Your task to perform on an android device: change the clock style Image 0: 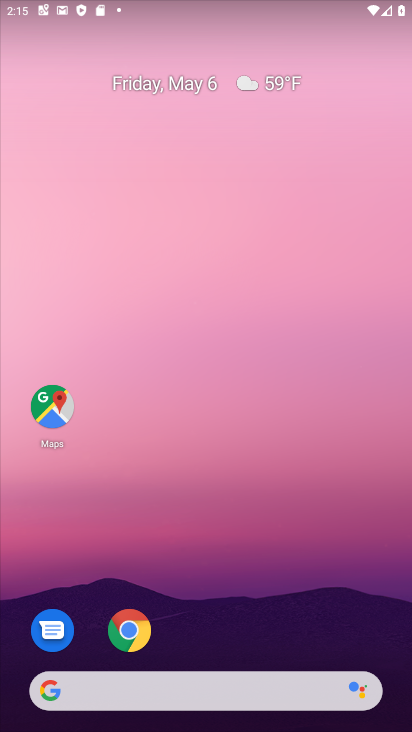
Step 0: drag from (184, 619) to (202, 158)
Your task to perform on an android device: change the clock style Image 1: 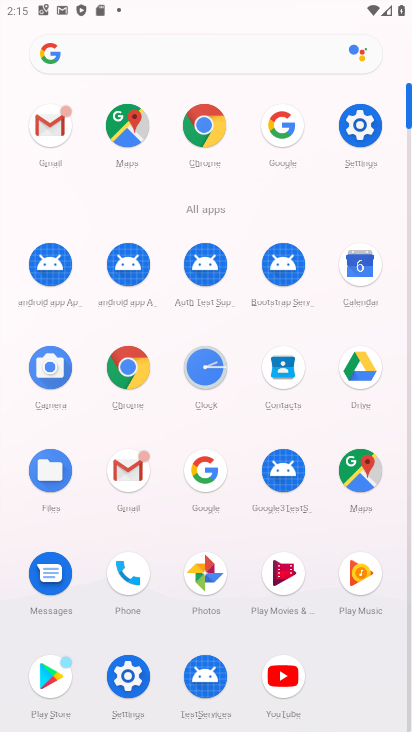
Step 1: click (212, 367)
Your task to perform on an android device: change the clock style Image 2: 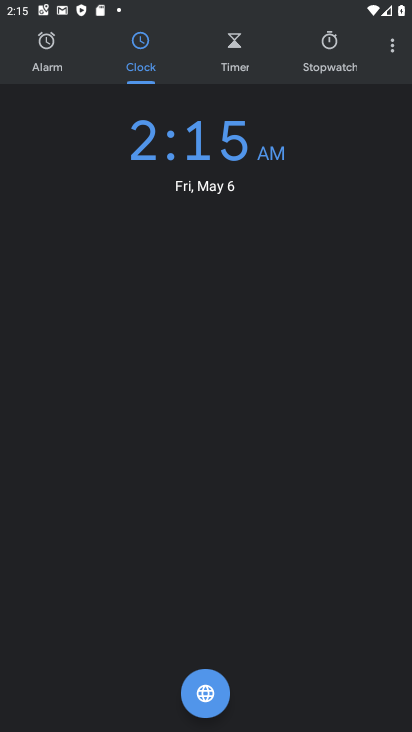
Step 2: click (389, 52)
Your task to perform on an android device: change the clock style Image 3: 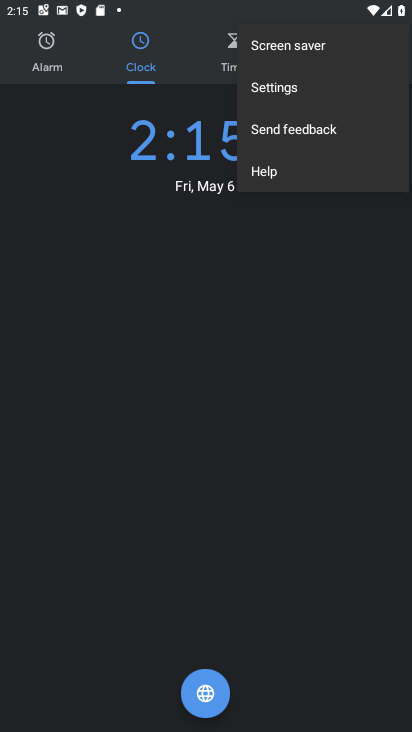
Step 3: click (300, 72)
Your task to perform on an android device: change the clock style Image 4: 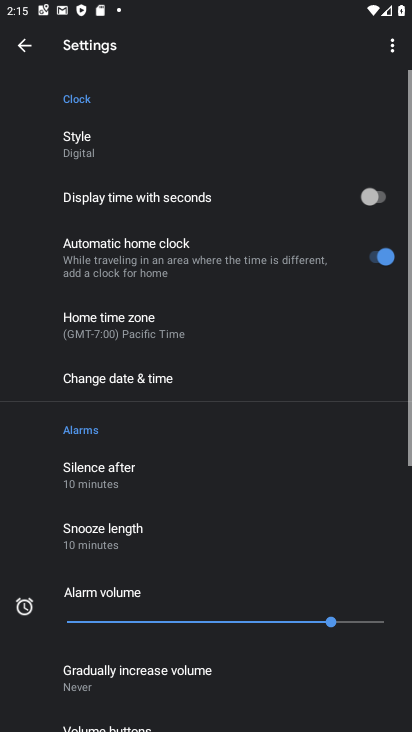
Step 4: click (87, 155)
Your task to perform on an android device: change the clock style Image 5: 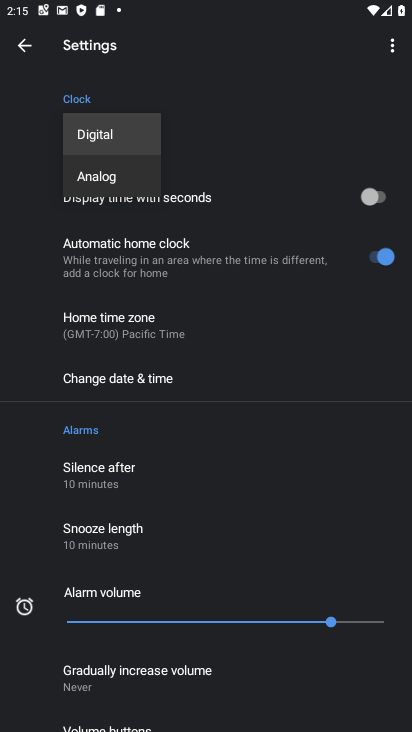
Step 5: click (149, 174)
Your task to perform on an android device: change the clock style Image 6: 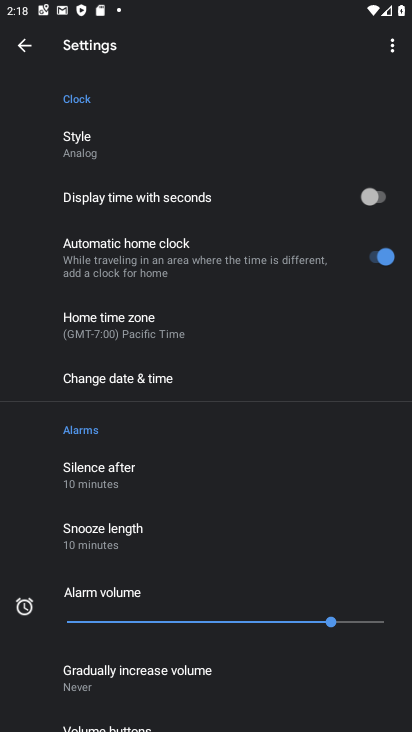
Step 6: task complete